Your task to perform on an android device: Open Google Maps and go to "Timeline" Image 0: 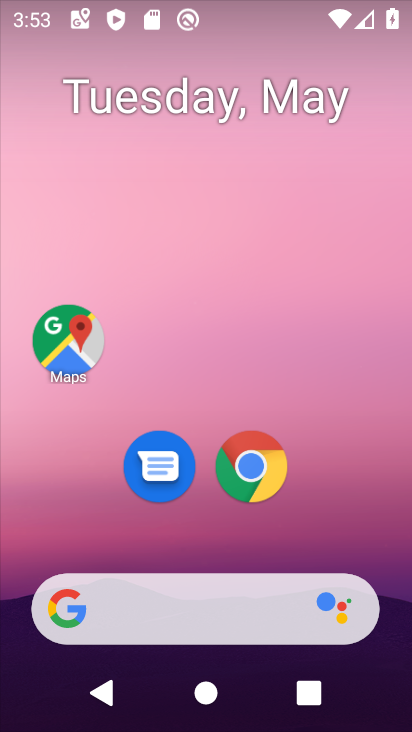
Step 0: click (62, 352)
Your task to perform on an android device: Open Google Maps and go to "Timeline" Image 1: 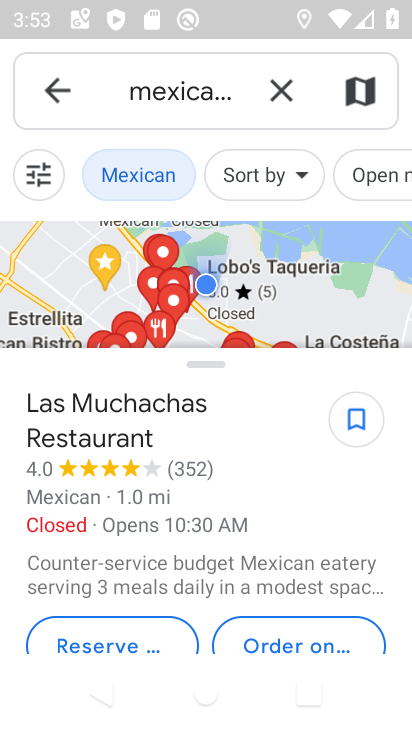
Step 1: click (286, 87)
Your task to perform on an android device: Open Google Maps and go to "Timeline" Image 2: 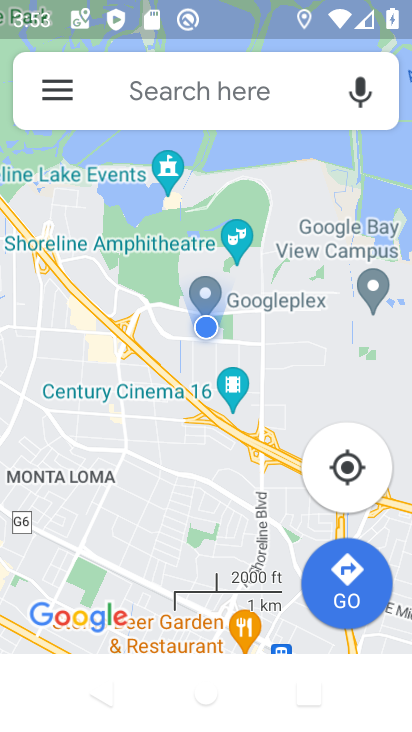
Step 2: click (46, 106)
Your task to perform on an android device: Open Google Maps and go to "Timeline" Image 3: 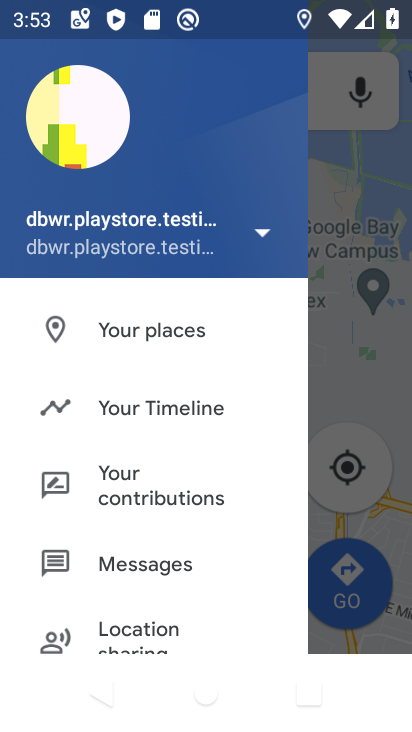
Step 3: click (132, 410)
Your task to perform on an android device: Open Google Maps and go to "Timeline" Image 4: 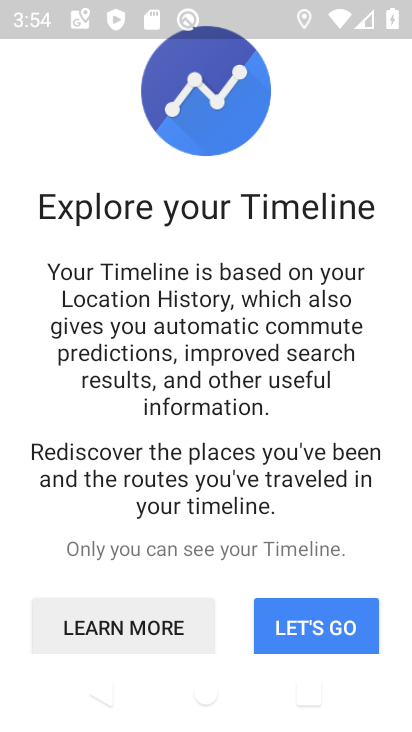
Step 4: drag from (236, 610) to (230, 366)
Your task to perform on an android device: Open Google Maps and go to "Timeline" Image 5: 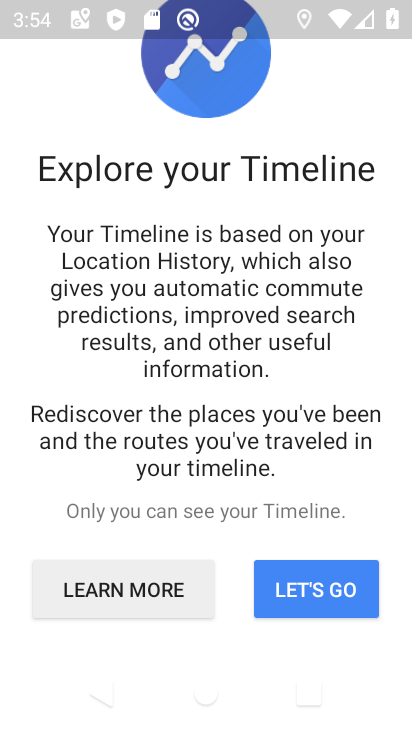
Step 5: click (288, 611)
Your task to perform on an android device: Open Google Maps and go to "Timeline" Image 6: 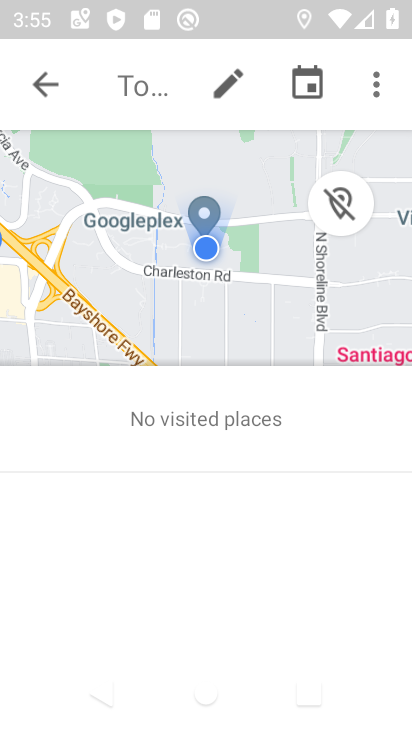
Step 6: task complete